Your task to perform on an android device: Go to wifi settings Image 0: 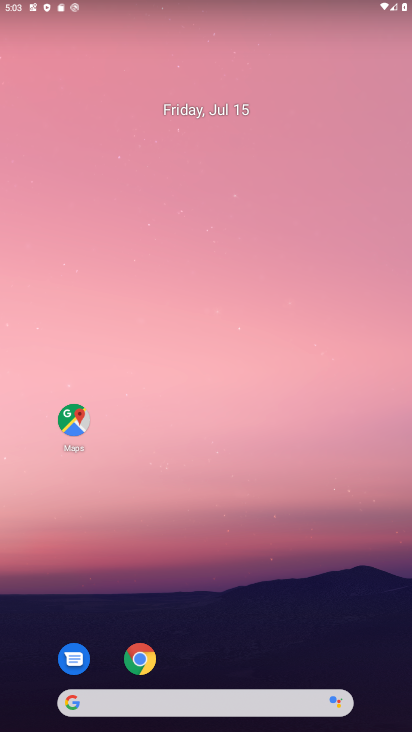
Step 0: drag from (305, 526) to (255, 39)
Your task to perform on an android device: Go to wifi settings Image 1: 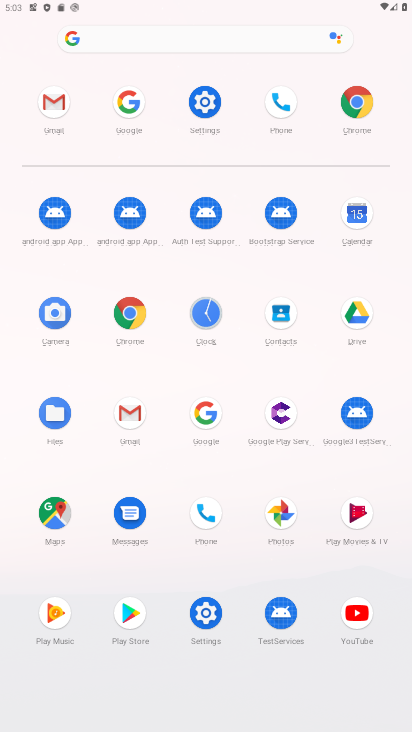
Step 1: click (196, 116)
Your task to perform on an android device: Go to wifi settings Image 2: 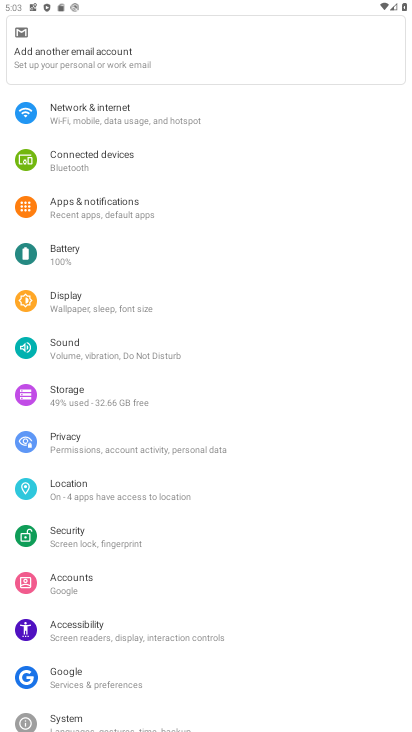
Step 2: click (98, 116)
Your task to perform on an android device: Go to wifi settings Image 3: 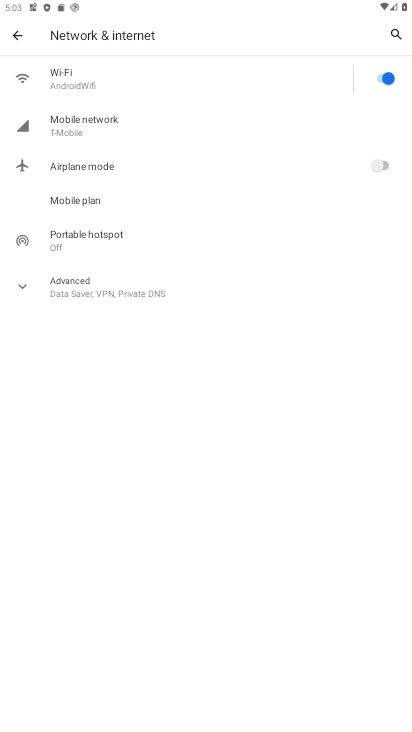
Step 3: click (90, 72)
Your task to perform on an android device: Go to wifi settings Image 4: 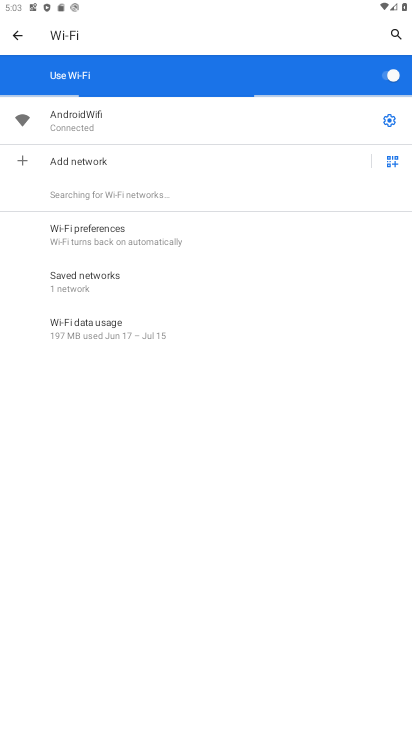
Step 4: task complete